Your task to perform on an android device: Go to Google maps Image 0: 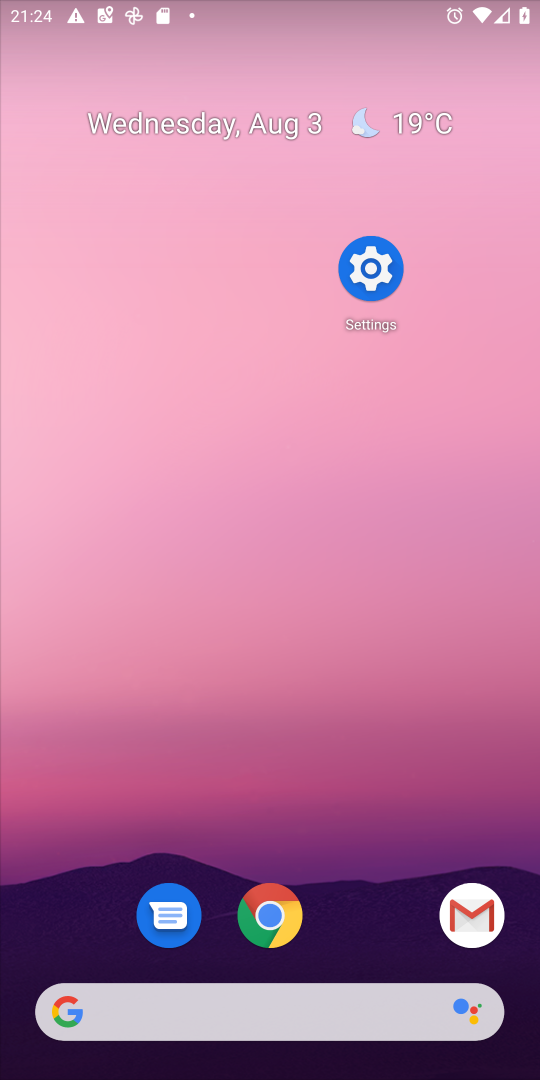
Step 0: press home button
Your task to perform on an android device: Go to Google maps Image 1: 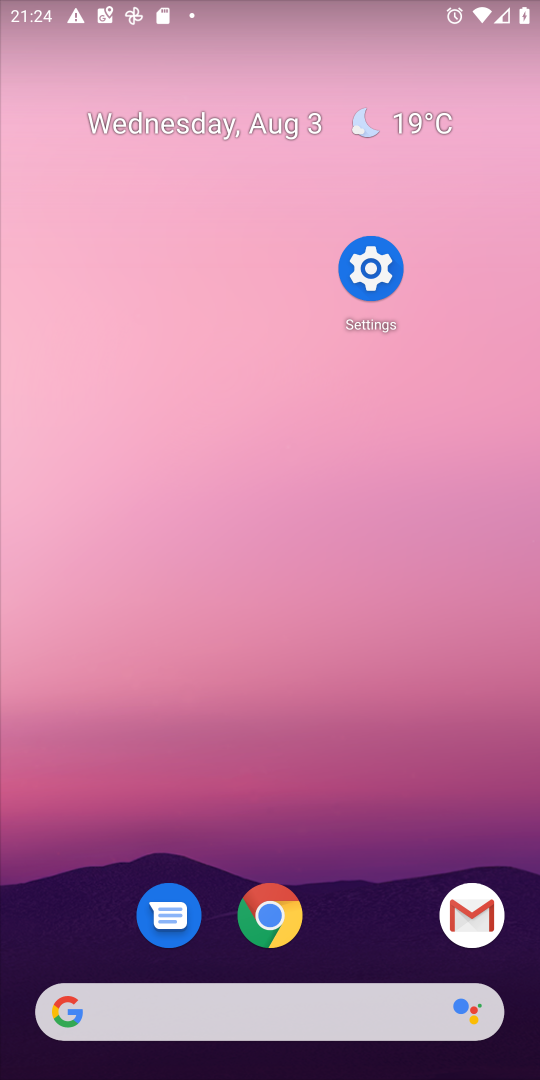
Step 1: drag from (336, 1033) to (162, 386)
Your task to perform on an android device: Go to Google maps Image 2: 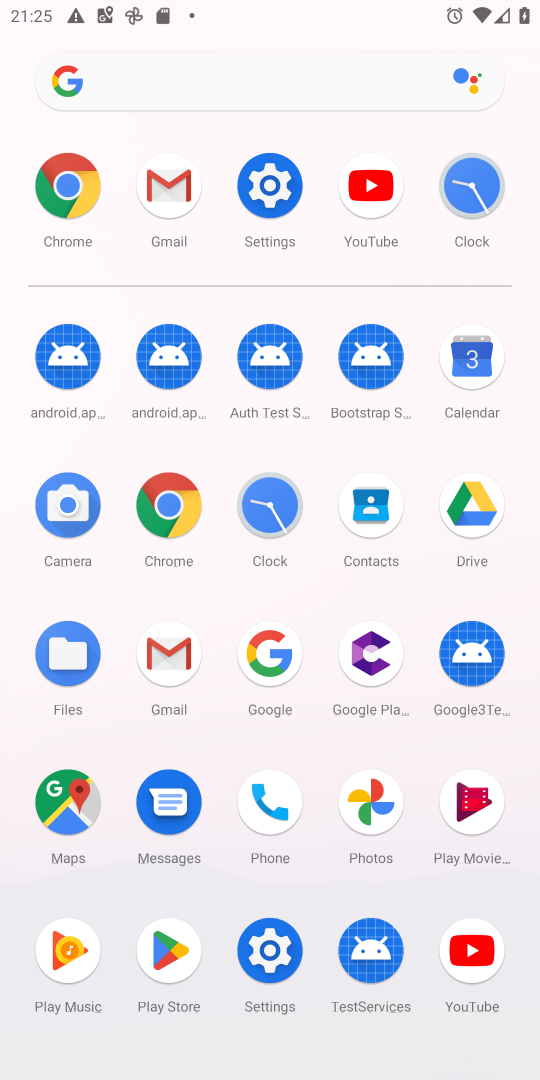
Step 2: click (72, 797)
Your task to perform on an android device: Go to Google maps Image 3: 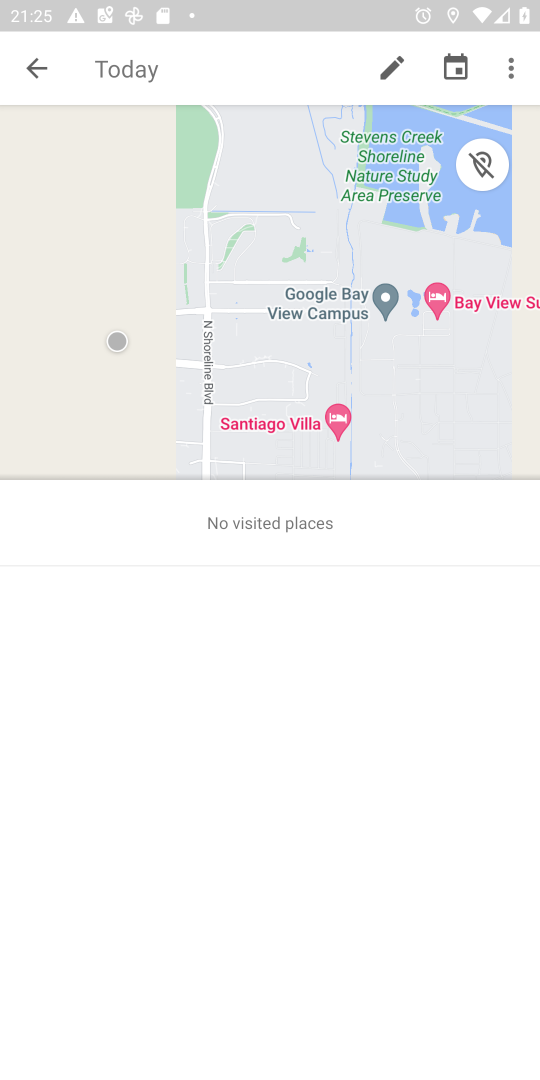
Step 3: click (30, 61)
Your task to perform on an android device: Go to Google maps Image 4: 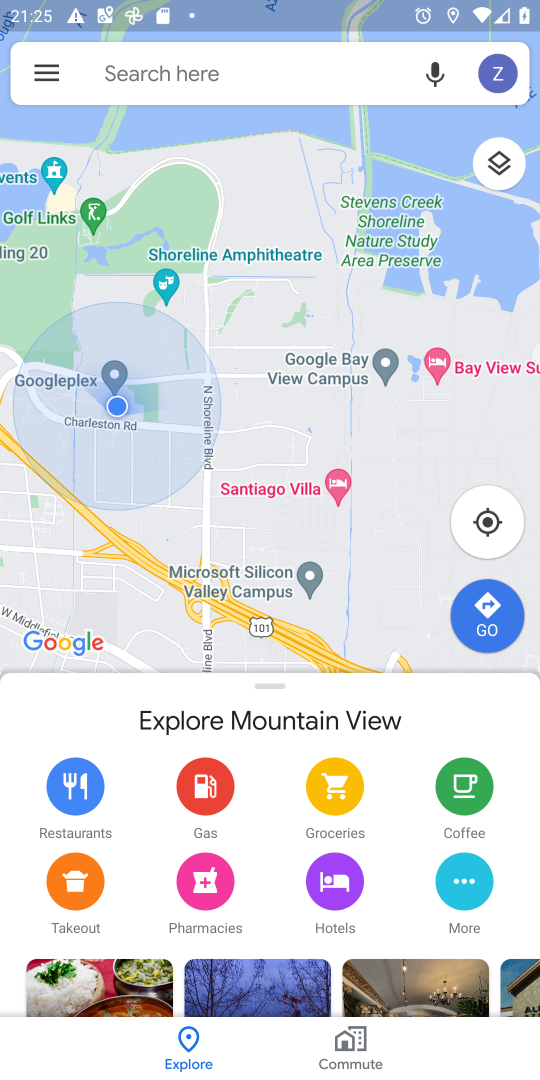
Step 4: task complete